Your task to perform on an android device: move a message to another label in the gmail app Image 0: 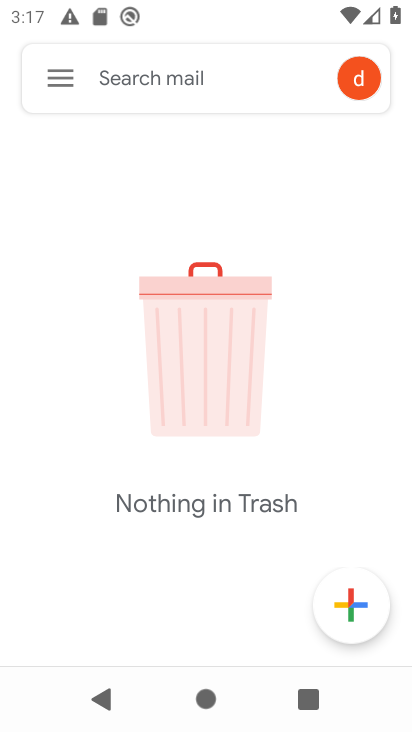
Step 0: click (76, 76)
Your task to perform on an android device: move a message to another label in the gmail app Image 1: 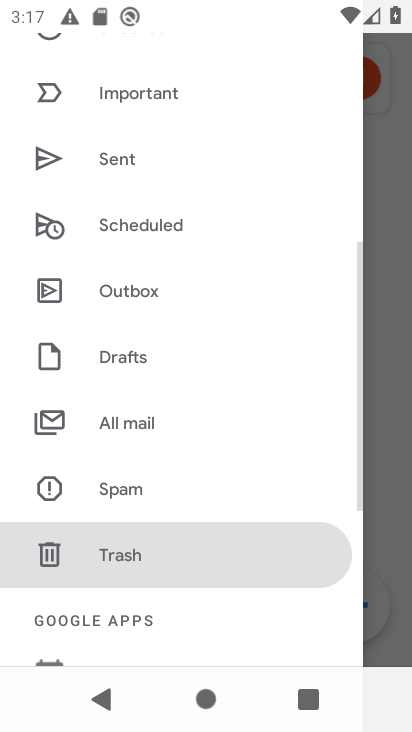
Step 1: click (183, 425)
Your task to perform on an android device: move a message to another label in the gmail app Image 2: 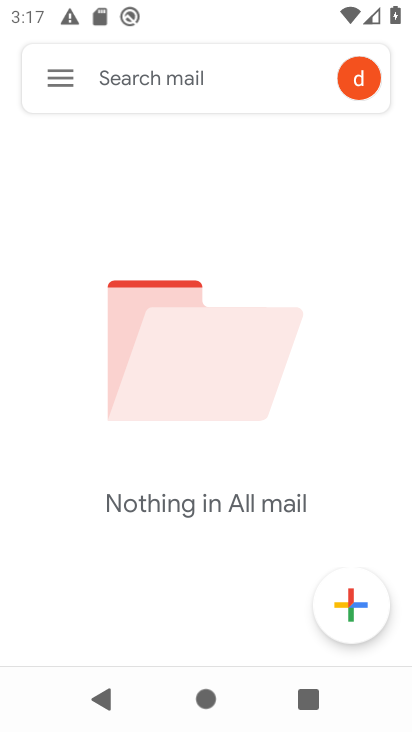
Step 2: task complete